Your task to perform on an android device: Add "duracell triple a" to the cart on ebay, then select checkout. Image 0: 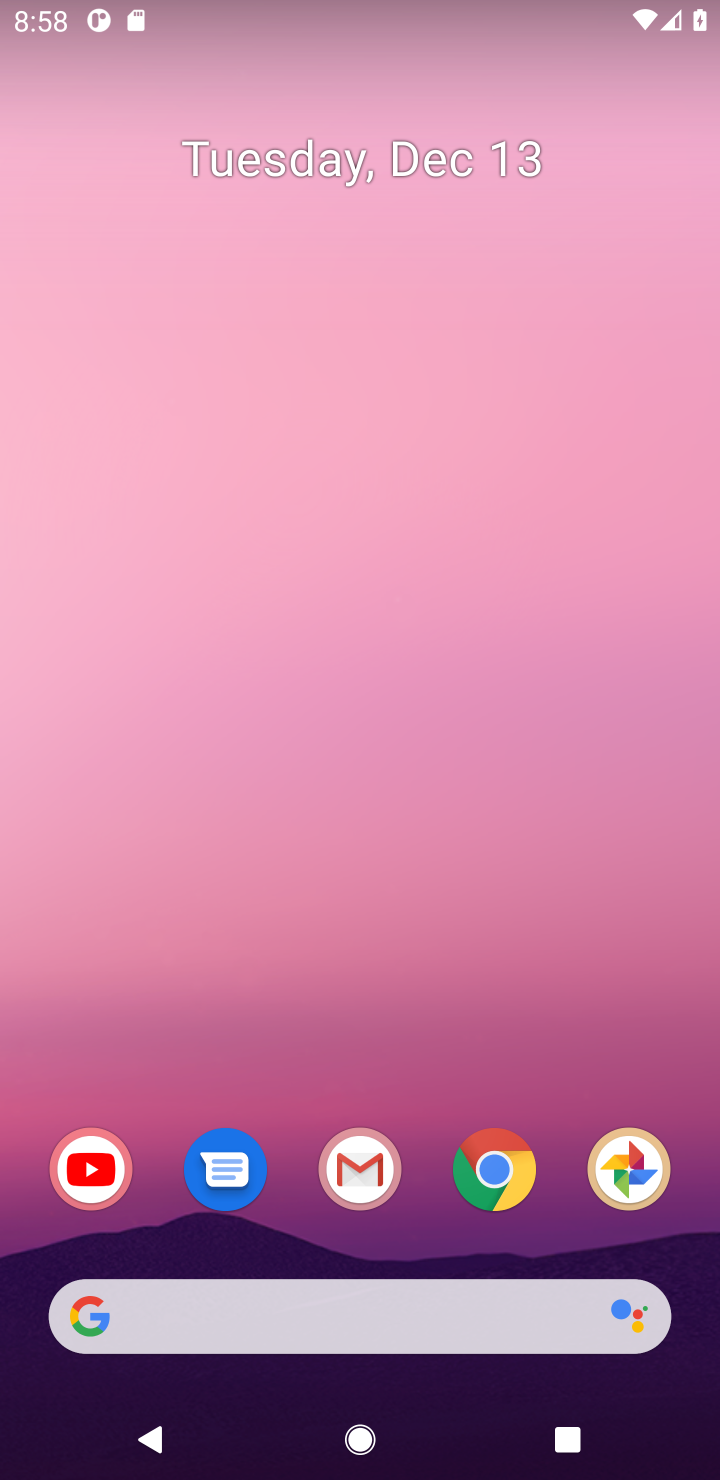
Step 0: click (467, 1289)
Your task to perform on an android device: Add "duracell triple a" to the cart on ebay, then select checkout. Image 1: 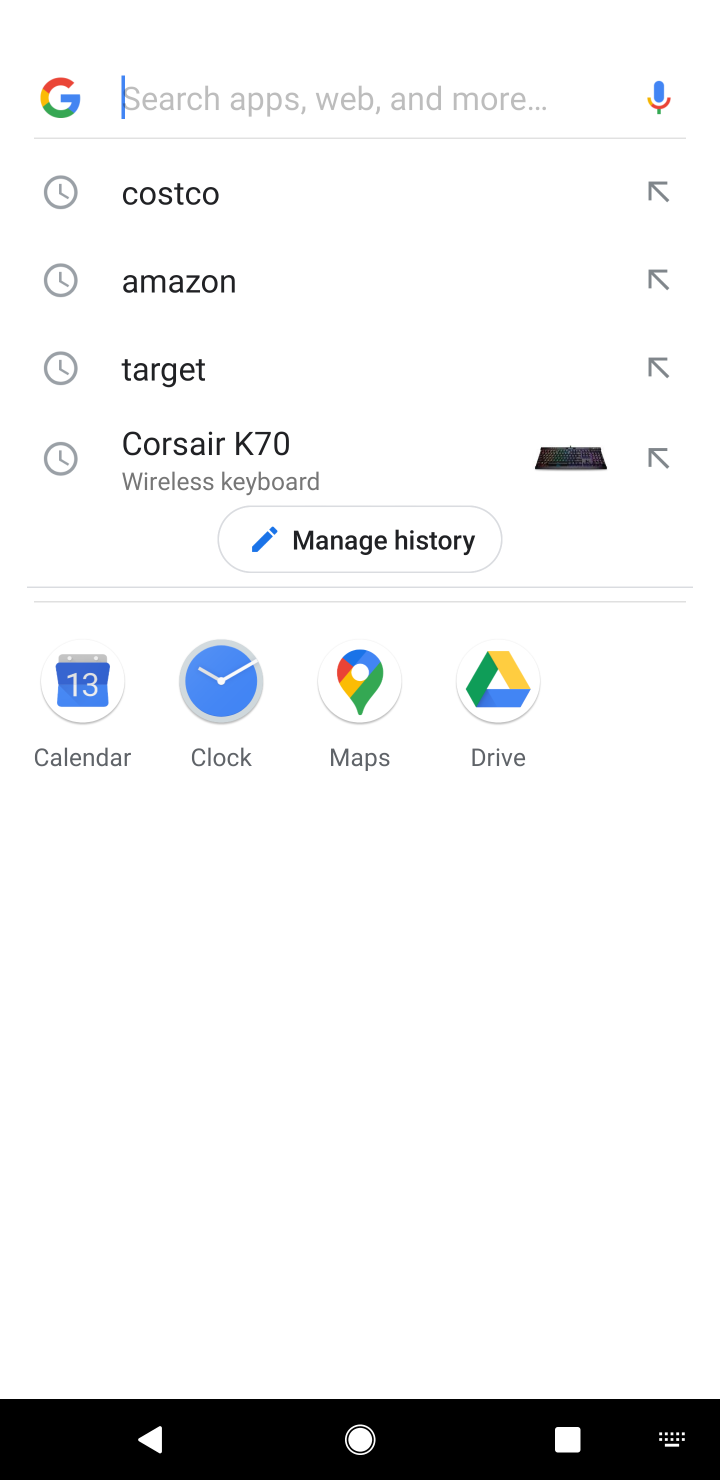
Step 1: type "ebay"
Your task to perform on an android device: Add "duracell triple a" to the cart on ebay, then select checkout. Image 2: 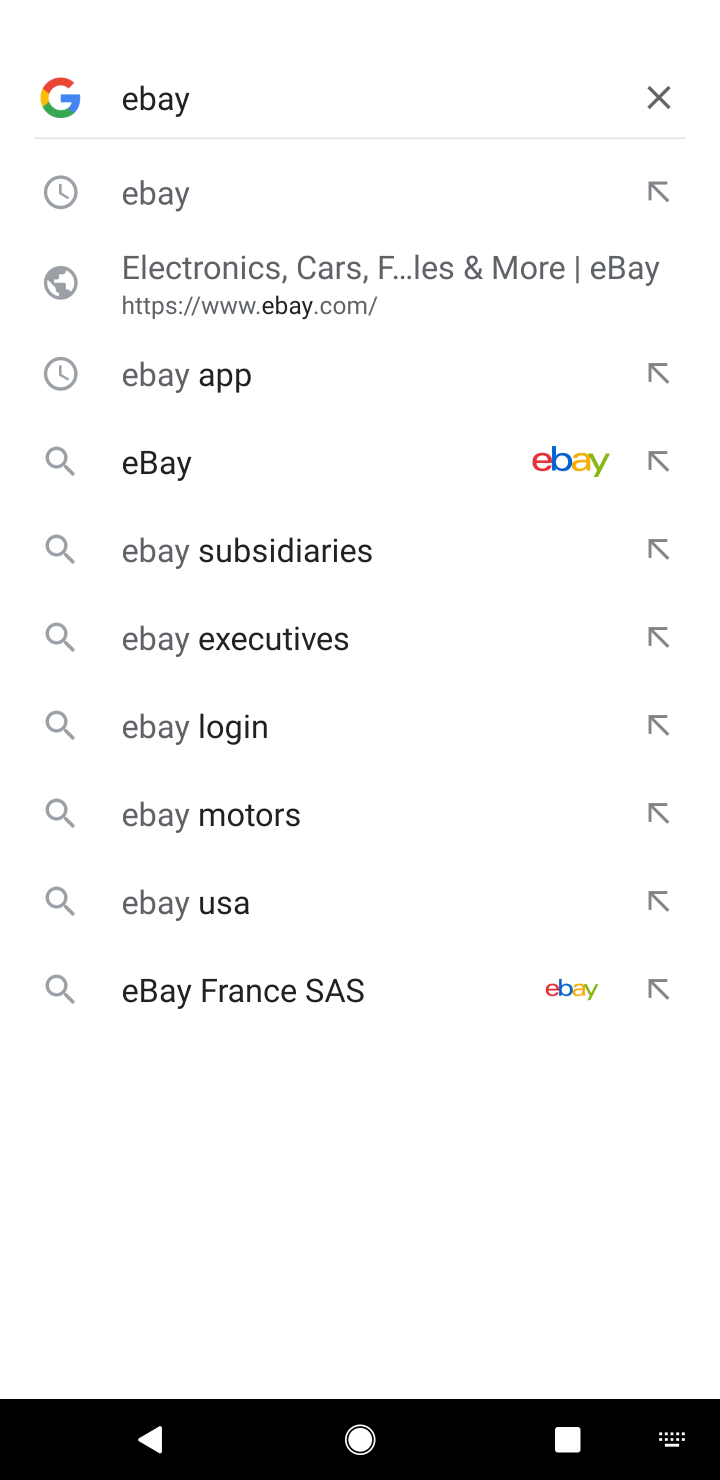
Step 2: click (286, 312)
Your task to perform on an android device: Add "duracell triple a" to the cart on ebay, then select checkout. Image 3: 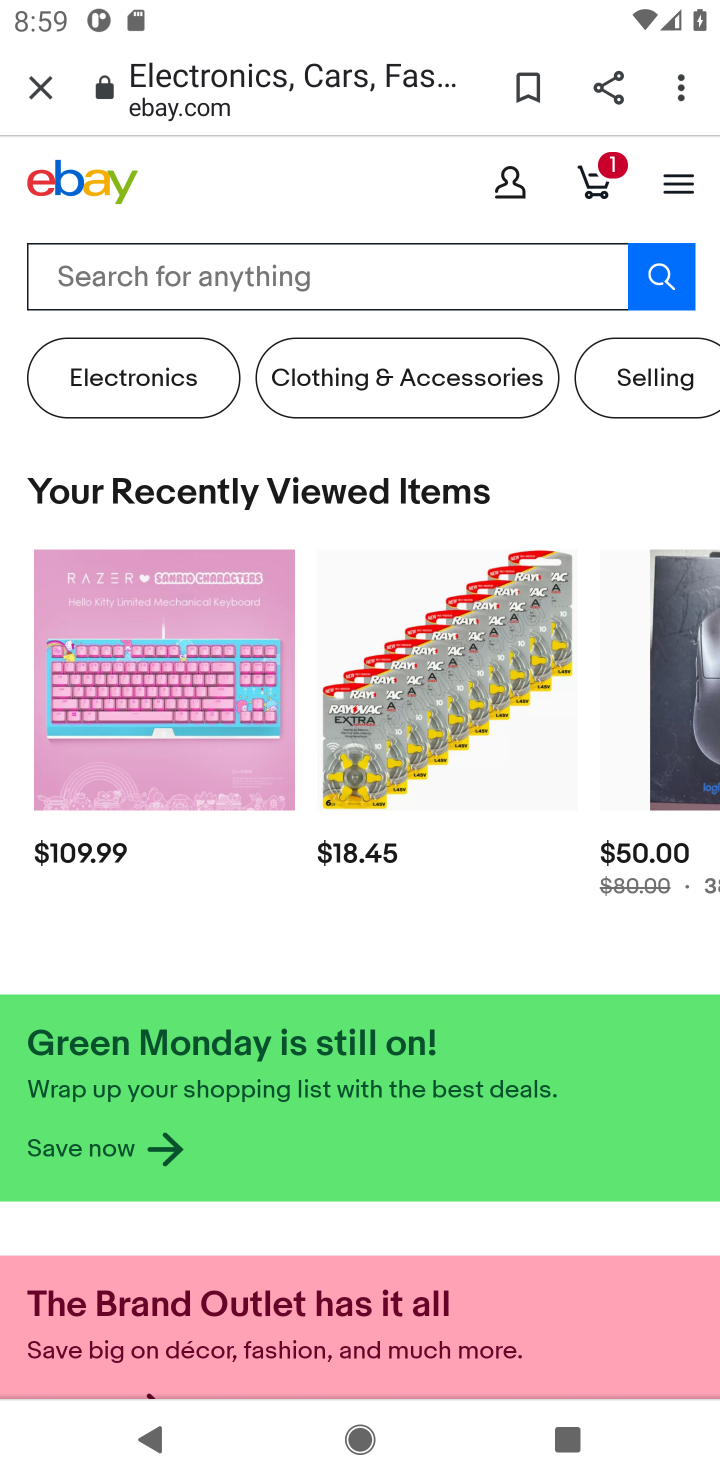
Step 3: click (243, 284)
Your task to perform on an android device: Add "duracell triple a" to the cart on ebay, then select checkout. Image 4: 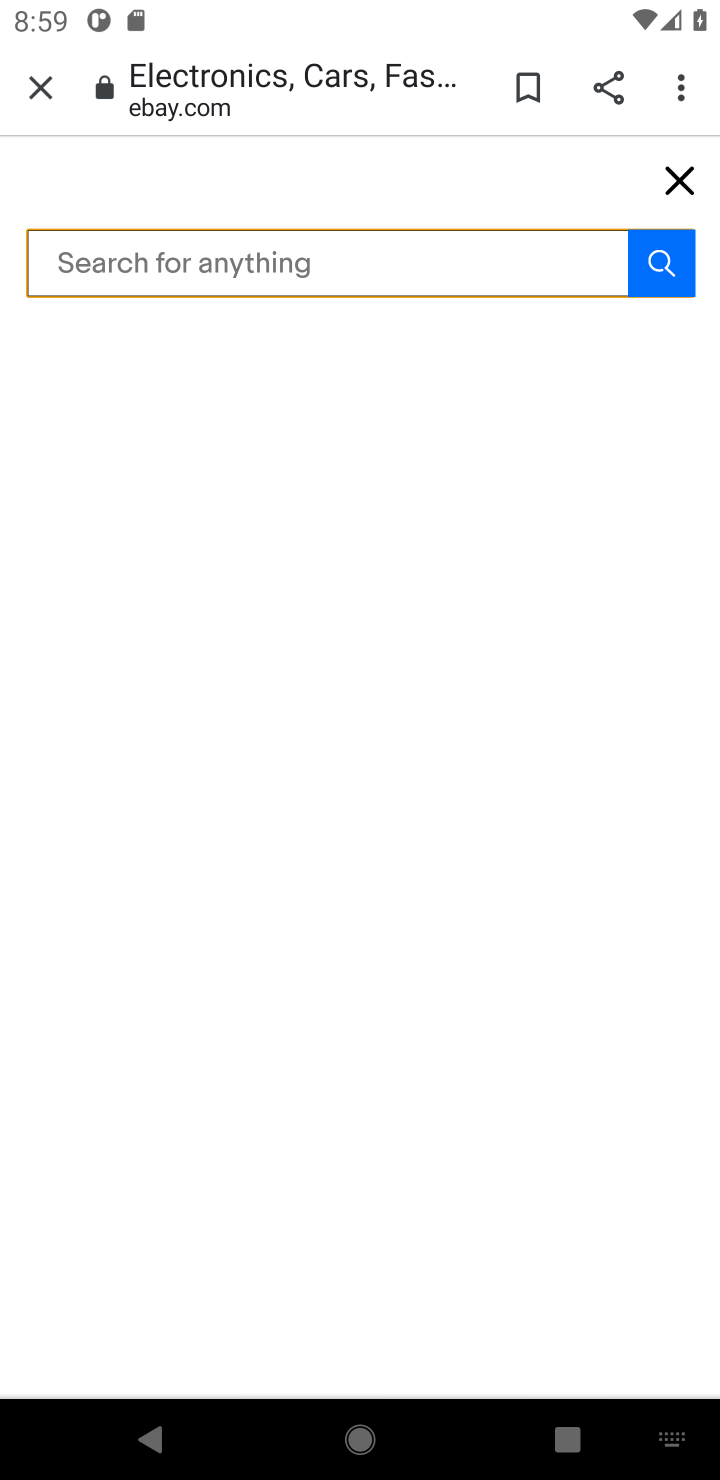
Step 4: type "duracell triple a"
Your task to perform on an android device: Add "duracell triple a" to the cart on ebay, then select checkout. Image 5: 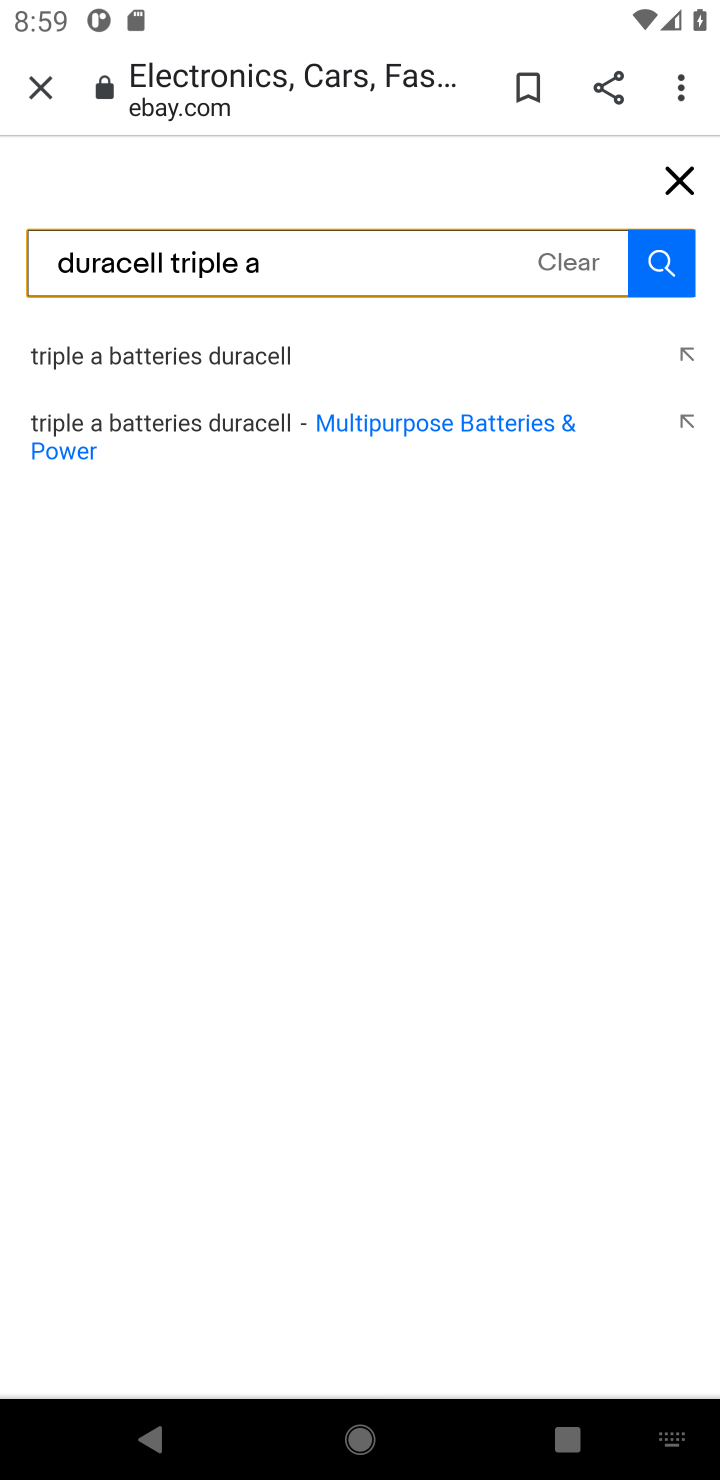
Step 5: click (654, 285)
Your task to perform on an android device: Add "duracell triple a" to the cart on ebay, then select checkout. Image 6: 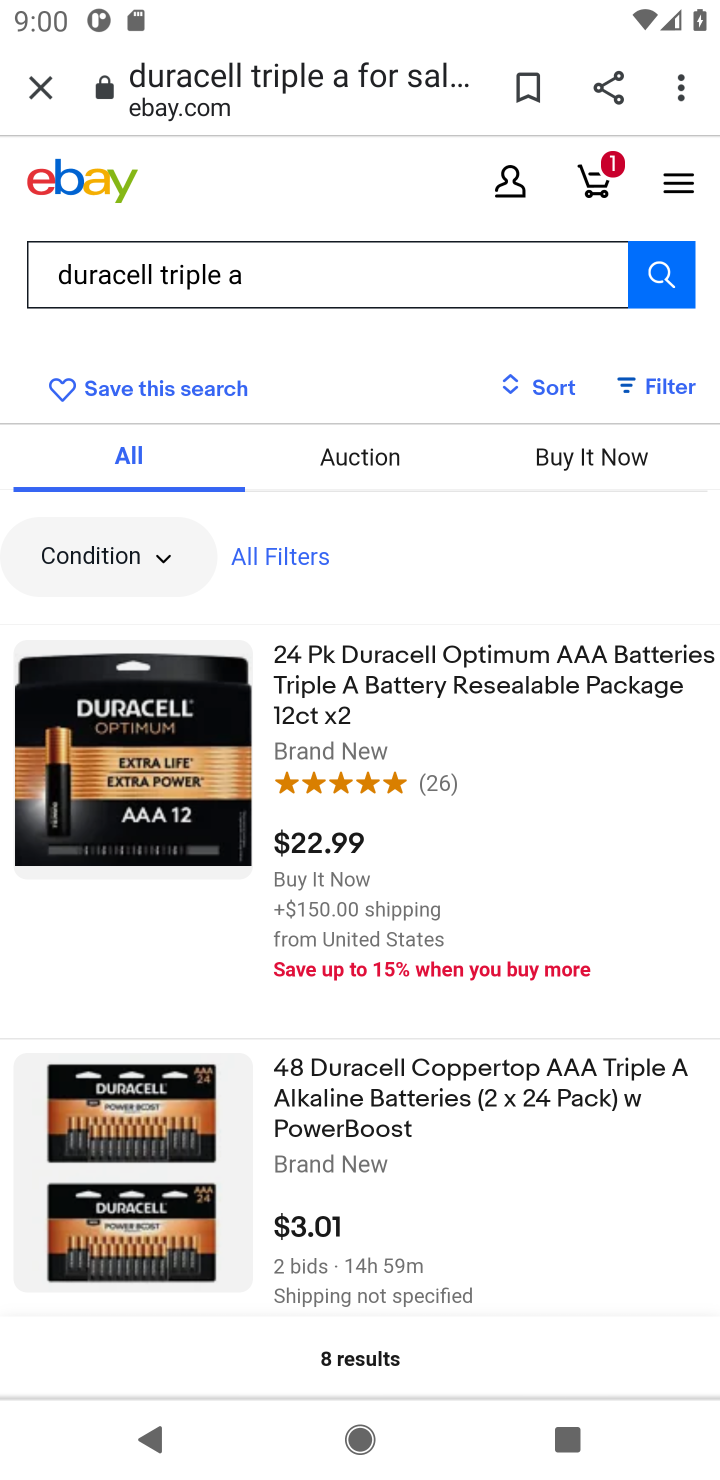
Step 6: click (256, 770)
Your task to perform on an android device: Add "duracell triple a" to the cart on ebay, then select checkout. Image 7: 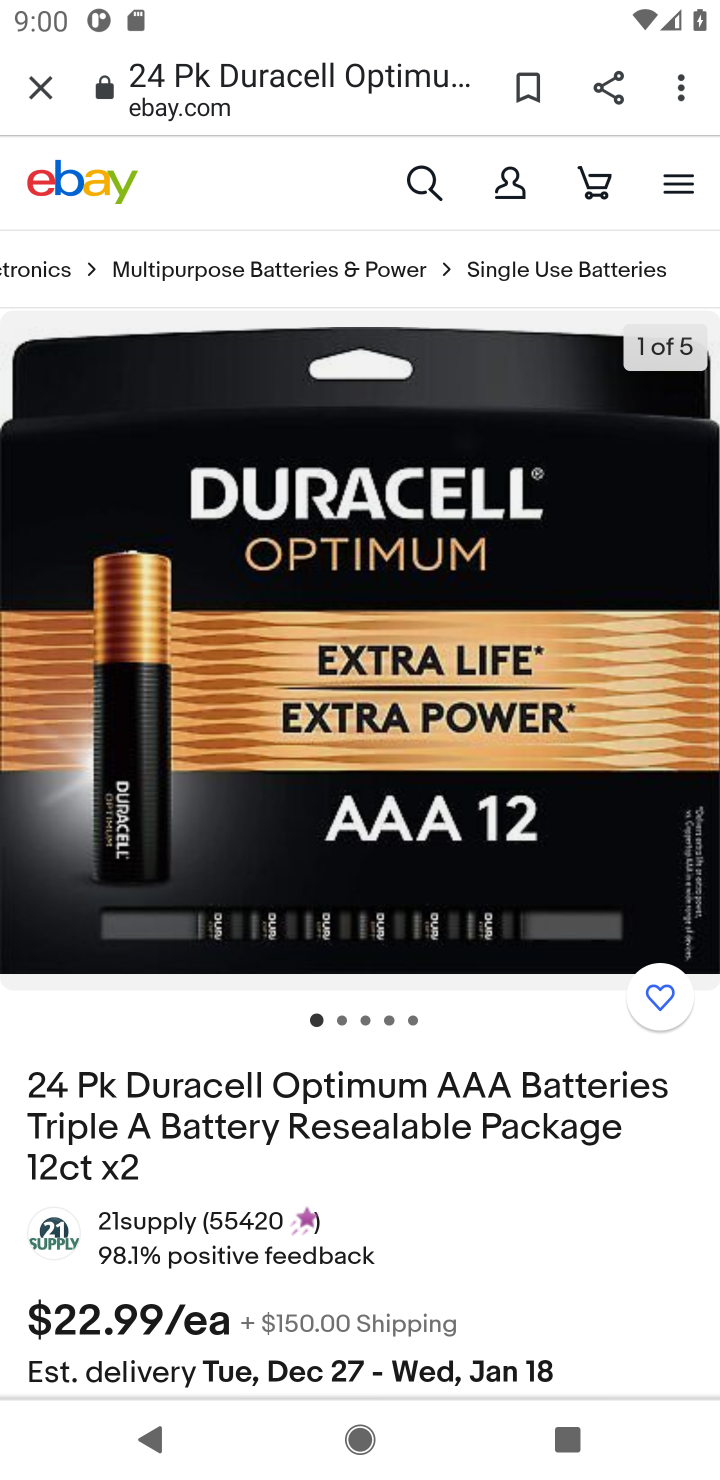
Step 7: drag from (396, 1232) to (362, 467)
Your task to perform on an android device: Add "duracell triple a" to the cart on ebay, then select checkout. Image 8: 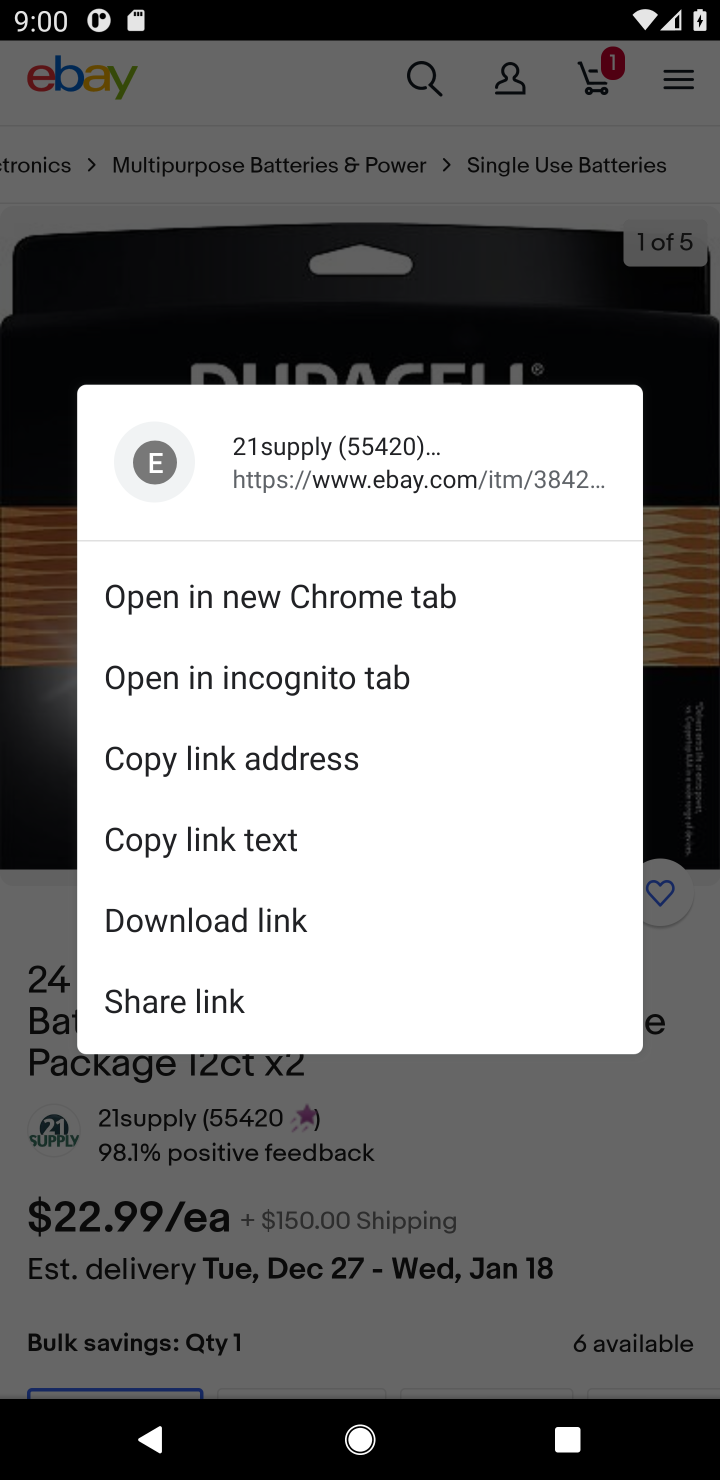
Step 8: click (426, 1200)
Your task to perform on an android device: Add "duracell triple a" to the cart on ebay, then select checkout. Image 9: 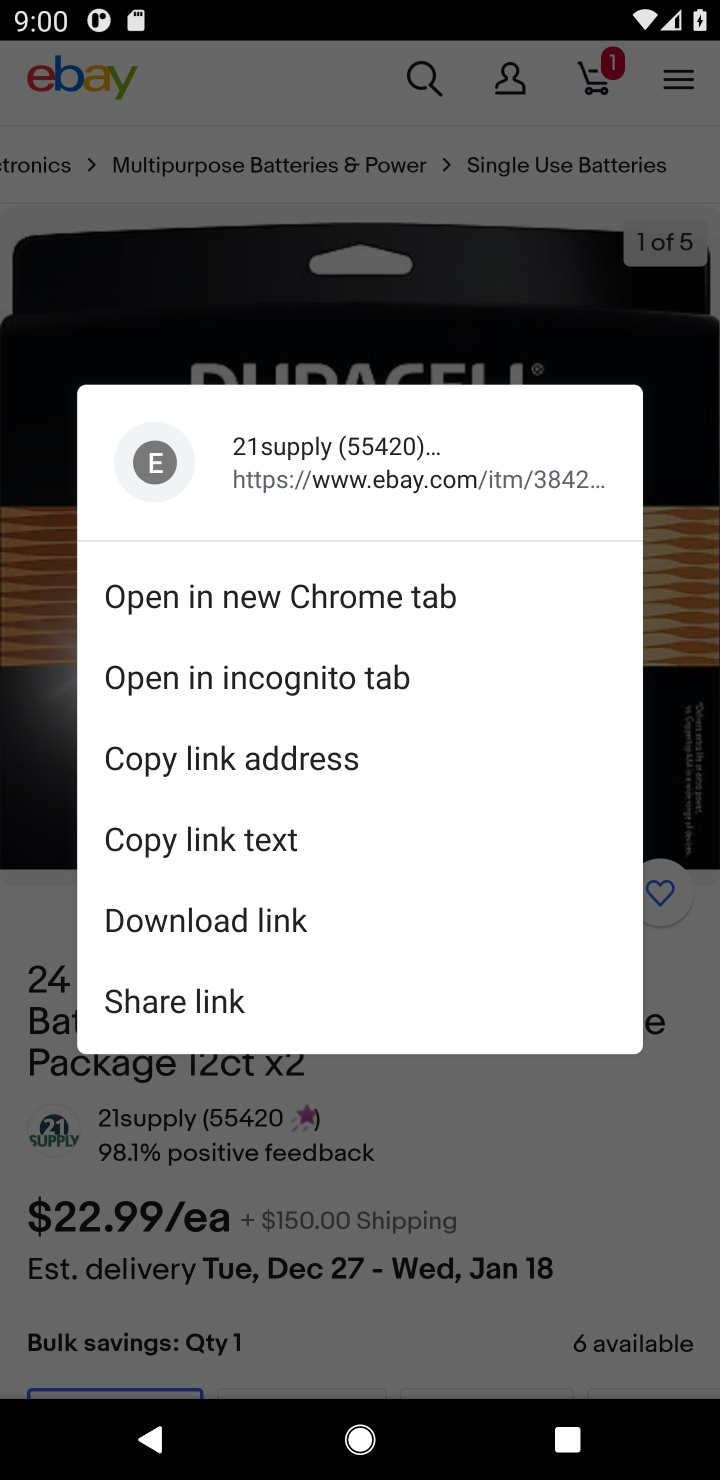
Step 9: drag from (426, 1200) to (386, 322)
Your task to perform on an android device: Add "duracell triple a" to the cart on ebay, then select checkout. Image 10: 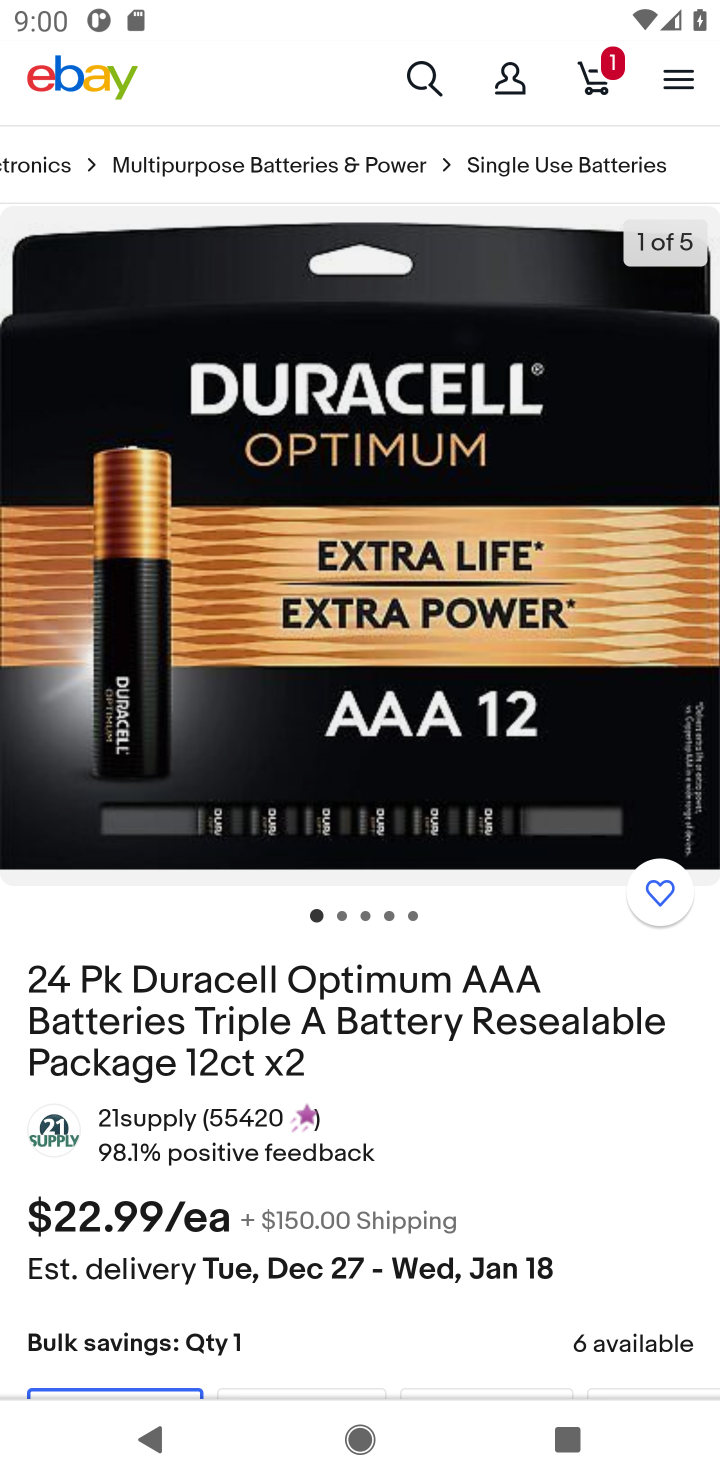
Step 10: drag from (425, 1316) to (432, 543)
Your task to perform on an android device: Add "duracell triple a" to the cart on ebay, then select checkout. Image 11: 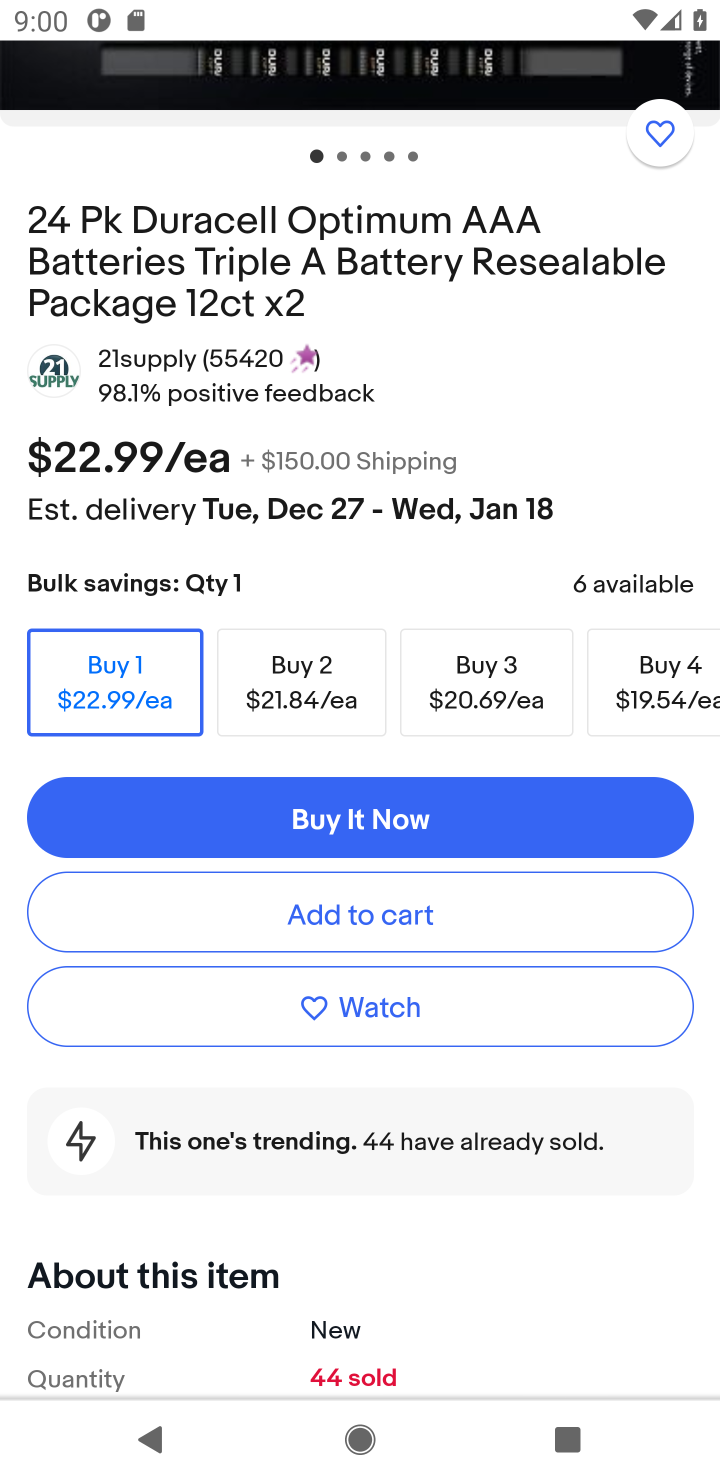
Step 11: click (392, 925)
Your task to perform on an android device: Add "duracell triple a" to the cart on ebay, then select checkout. Image 12: 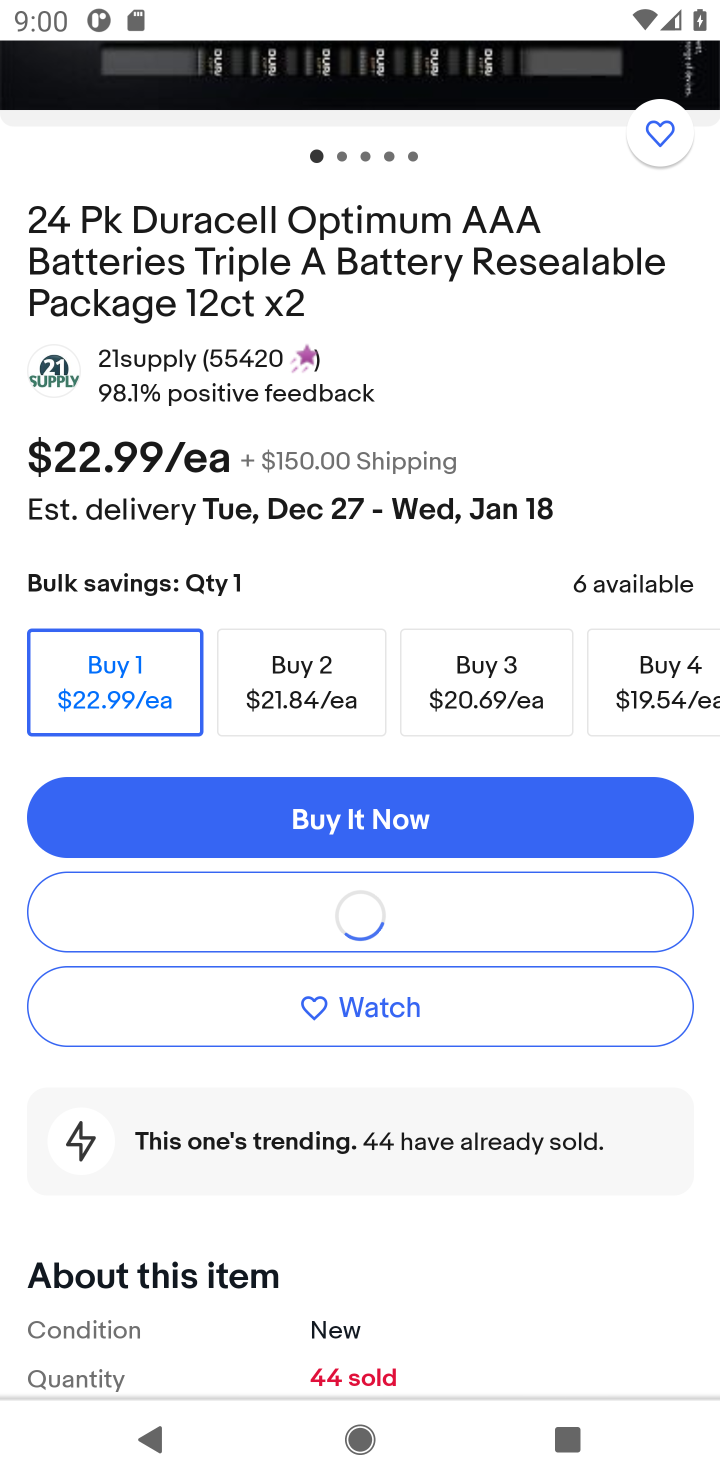
Step 12: task complete